Your task to perform on an android device: empty trash in google photos Image 0: 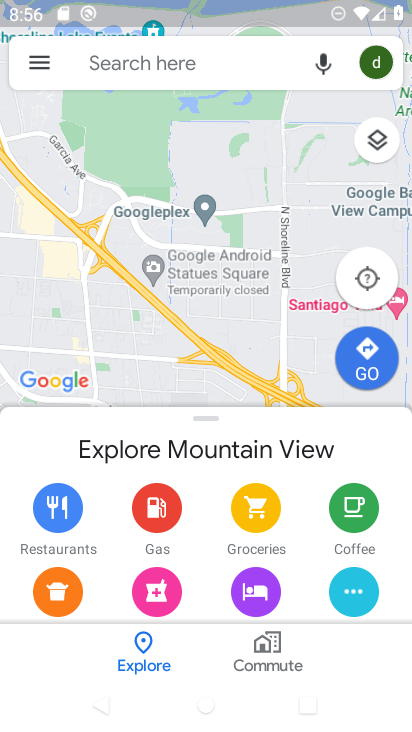
Step 0: press home button
Your task to perform on an android device: empty trash in google photos Image 1: 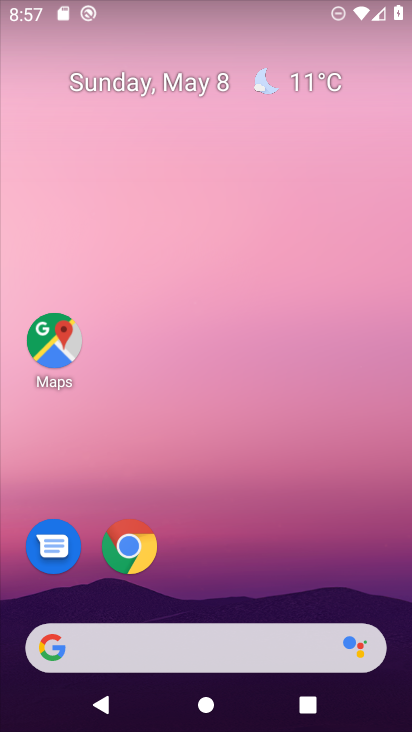
Step 1: drag from (274, 555) to (264, 0)
Your task to perform on an android device: empty trash in google photos Image 2: 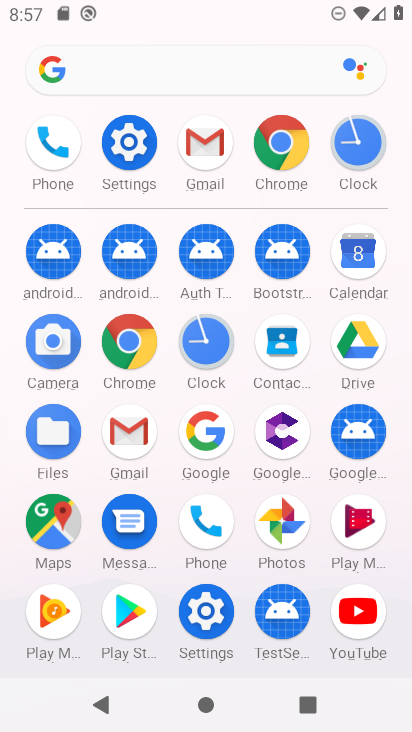
Step 2: click (280, 514)
Your task to perform on an android device: empty trash in google photos Image 3: 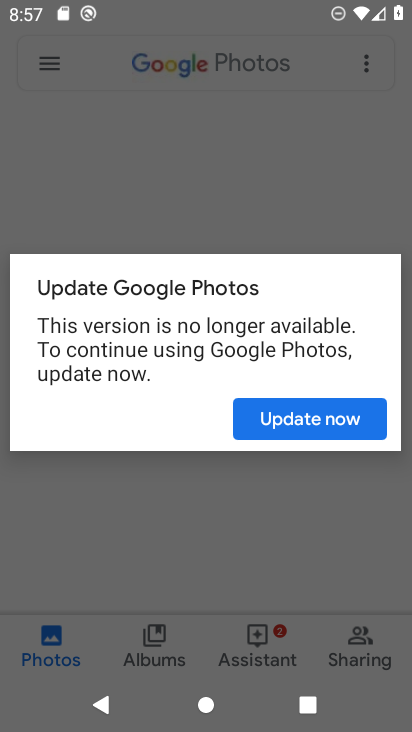
Step 3: click (309, 419)
Your task to perform on an android device: empty trash in google photos Image 4: 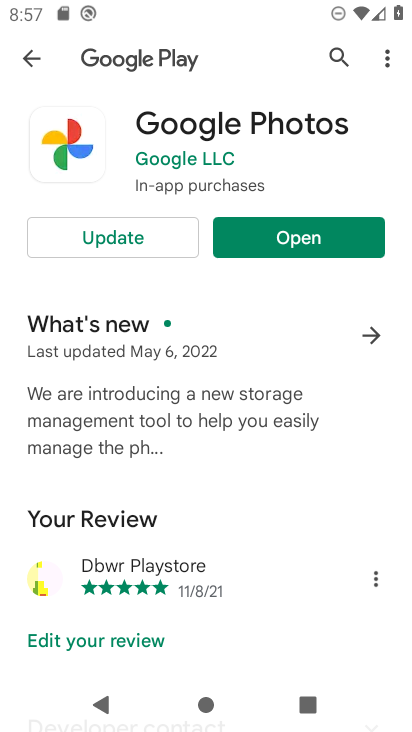
Step 4: click (170, 227)
Your task to perform on an android device: empty trash in google photos Image 5: 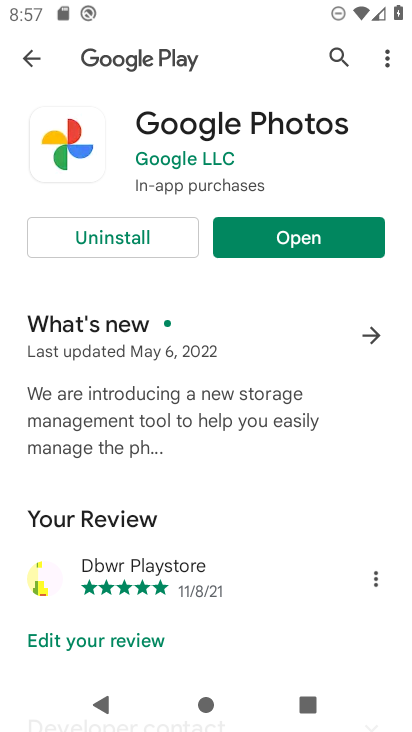
Step 5: click (237, 238)
Your task to perform on an android device: empty trash in google photos Image 6: 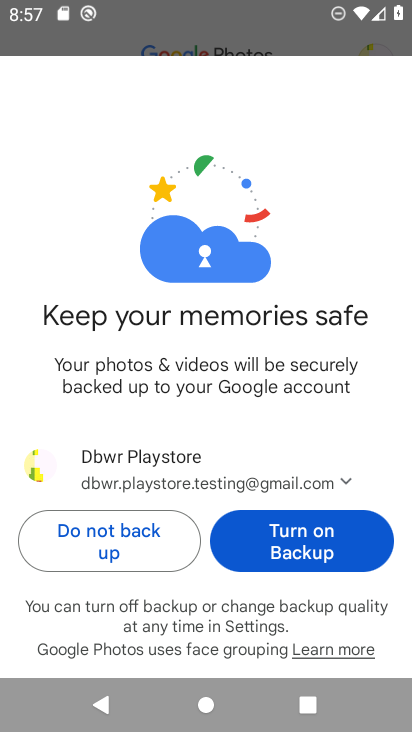
Step 6: click (322, 537)
Your task to perform on an android device: empty trash in google photos Image 7: 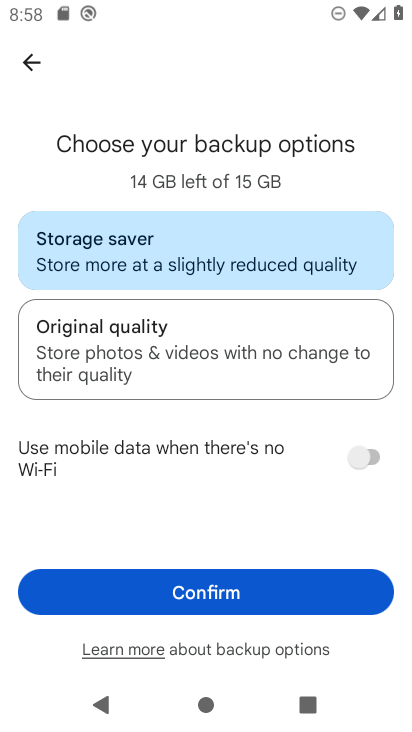
Step 7: click (322, 604)
Your task to perform on an android device: empty trash in google photos Image 8: 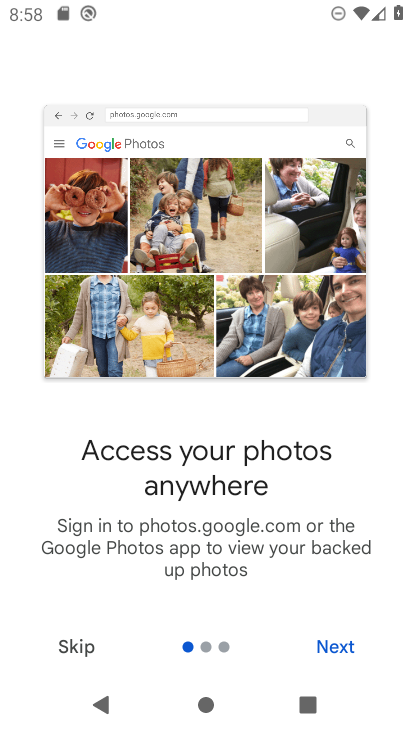
Step 8: click (332, 645)
Your task to perform on an android device: empty trash in google photos Image 9: 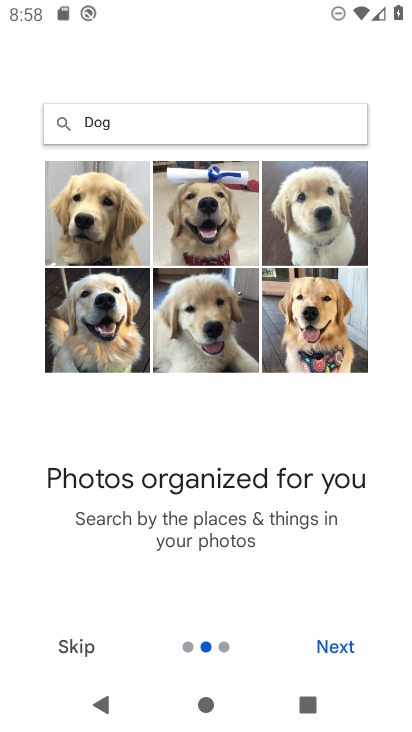
Step 9: click (332, 645)
Your task to perform on an android device: empty trash in google photos Image 10: 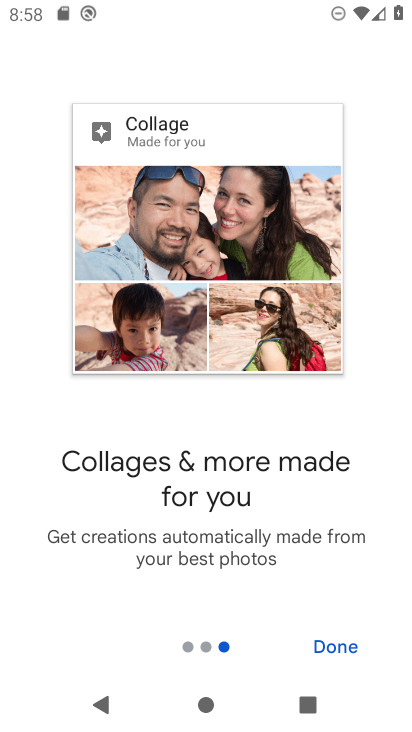
Step 10: click (332, 645)
Your task to perform on an android device: empty trash in google photos Image 11: 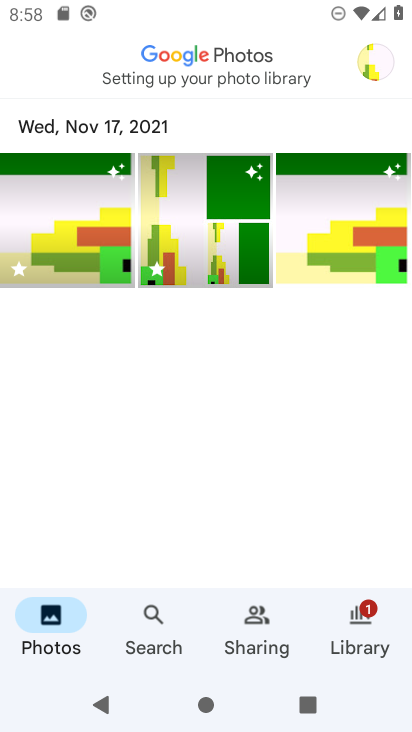
Step 11: click (378, 67)
Your task to perform on an android device: empty trash in google photos Image 12: 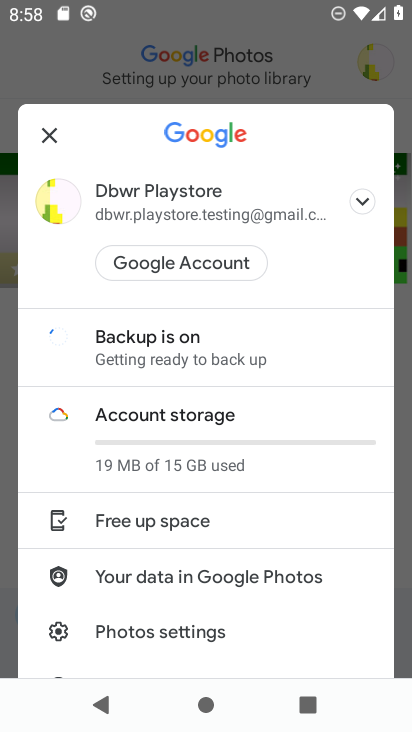
Step 12: drag from (294, 623) to (278, 293)
Your task to perform on an android device: empty trash in google photos Image 13: 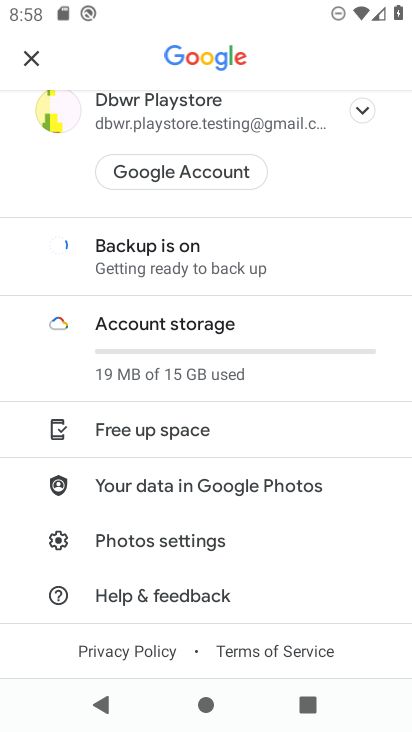
Step 13: click (197, 540)
Your task to perform on an android device: empty trash in google photos Image 14: 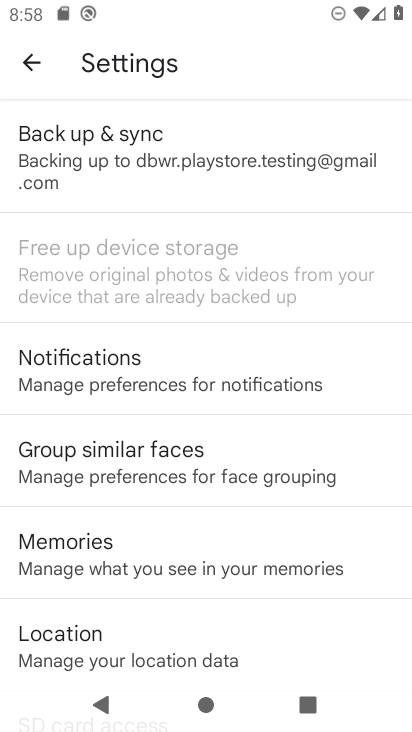
Step 14: drag from (307, 573) to (263, 75)
Your task to perform on an android device: empty trash in google photos Image 15: 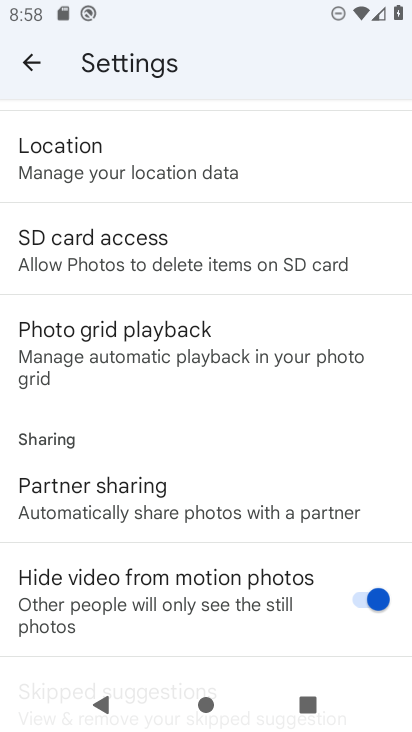
Step 15: drag from (251, 453) to (233, 174)
Your task to perform on an android device: empty trash in google photos Image 16: 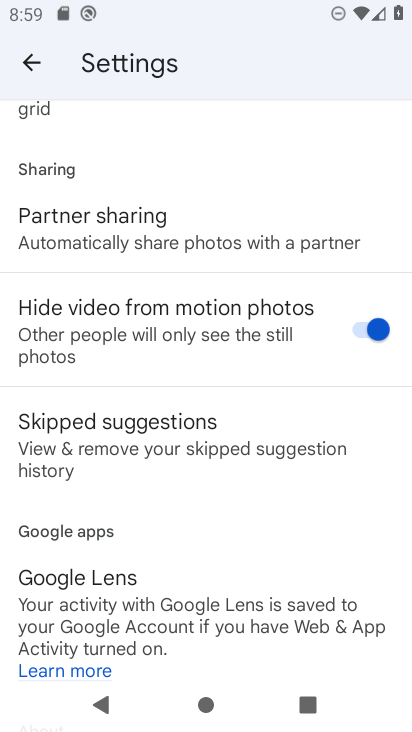
Step 16: drag from (245, 541) to (228, 265)
Your task to perform on an android device: empty trash in google photos Image 17: 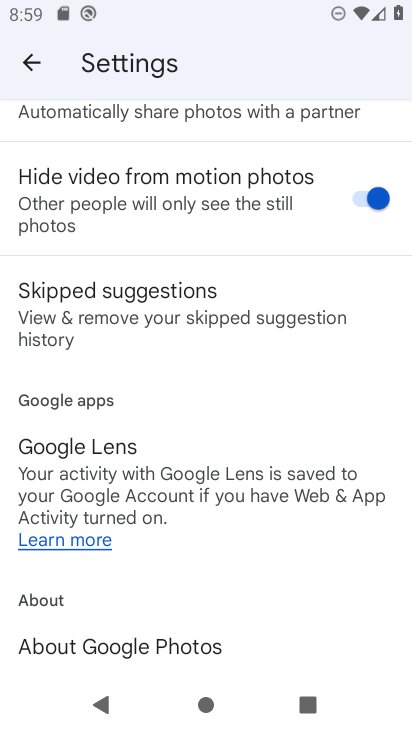
Step 17: drag from (232, 321) to (265, 727)
Your task to perform on an android device: empty trash in google photos Image 18: 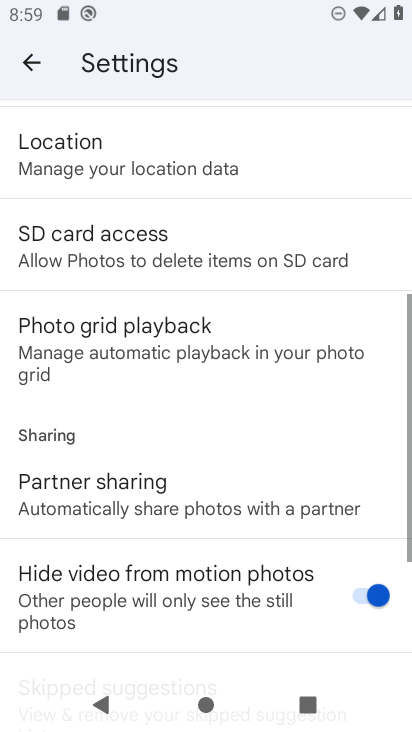
Step 18: drag from (231, 259) to (243, 680)
Your task to perform on an android device: empty trash in google photos Image 19: 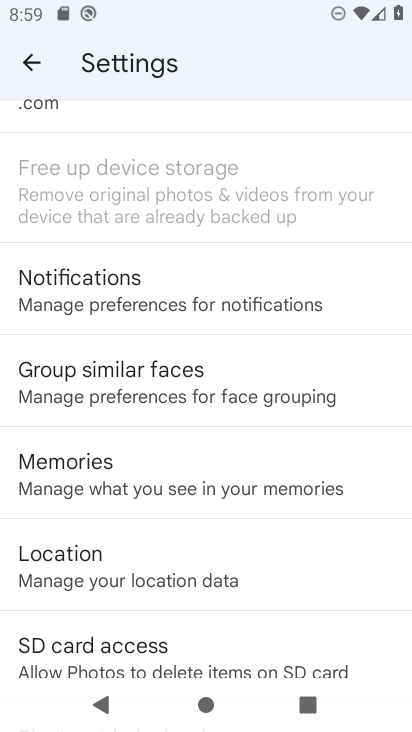
Step 19: click (30, 44)
Your task to perform on an android device: empty trash in google photos Image 20: 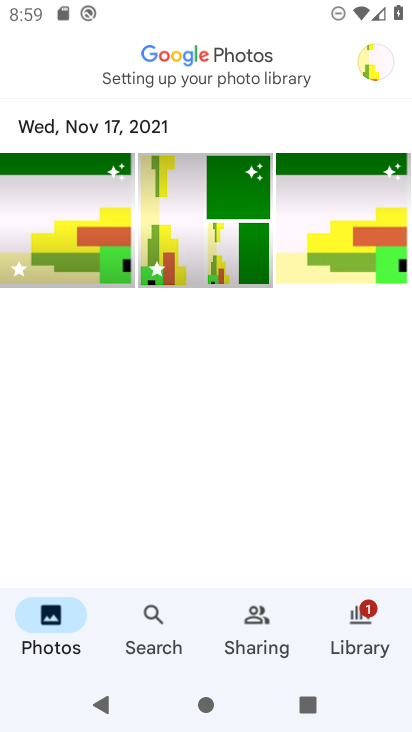
Step 20: click (153, 619)
Your task to perform on an android device: empty trash in google photos Image 21: 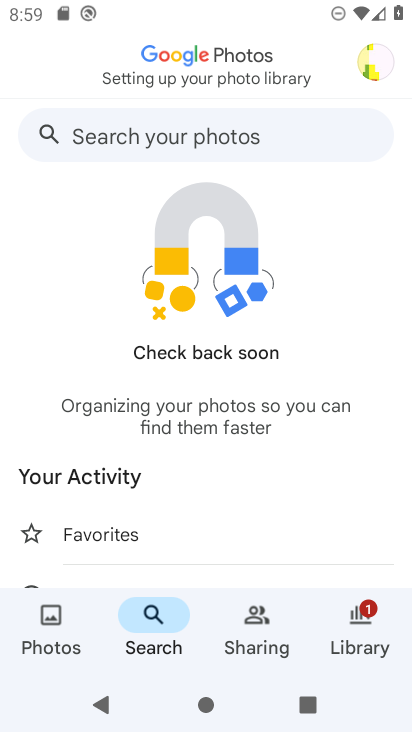
Step 21: click (235, 117)
Your task to perform on an android device: empty trash in google photos Image 22: 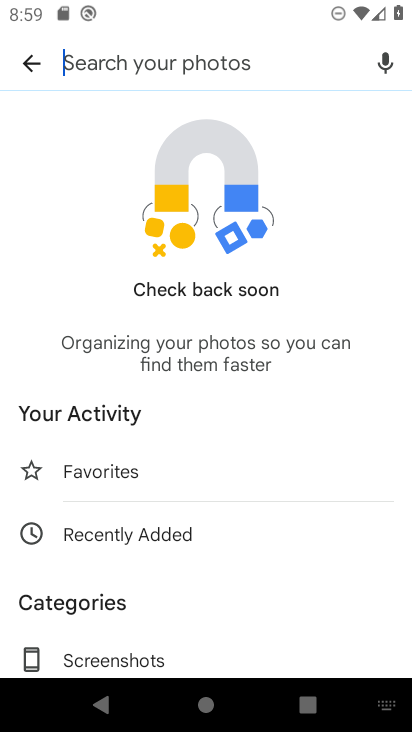
Step 22: type "trash"
Your task to perform on an android device: empty trash in google photos Image 23: 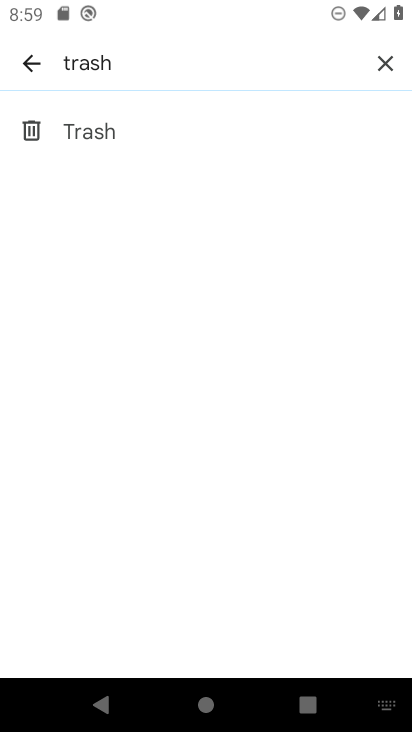
Step 23: click (113, 132)
Your task to perform on an android device: empty trash in google photos Image 24: 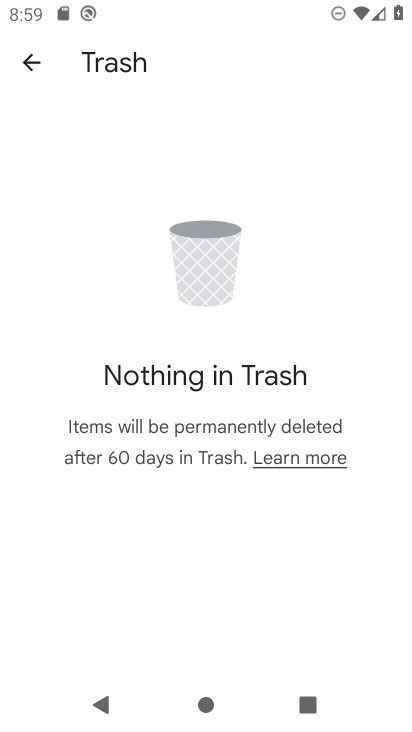
Step 24: task complete